Your task to perform on an android device: Go to Amazon Image 0: 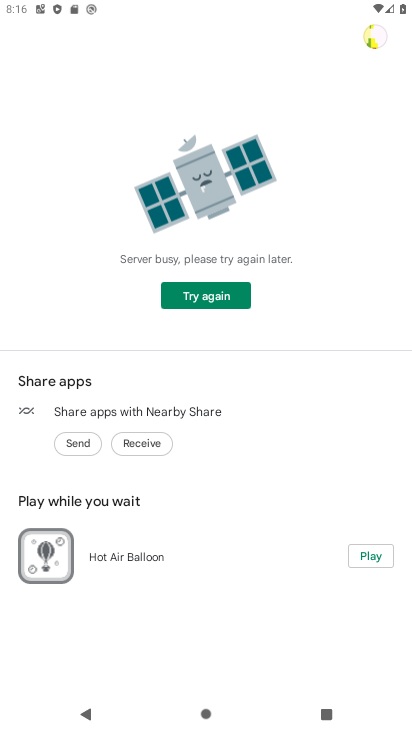
Step 0: press back button
Your task to perform on an android device: Go to Amazon Image 1: 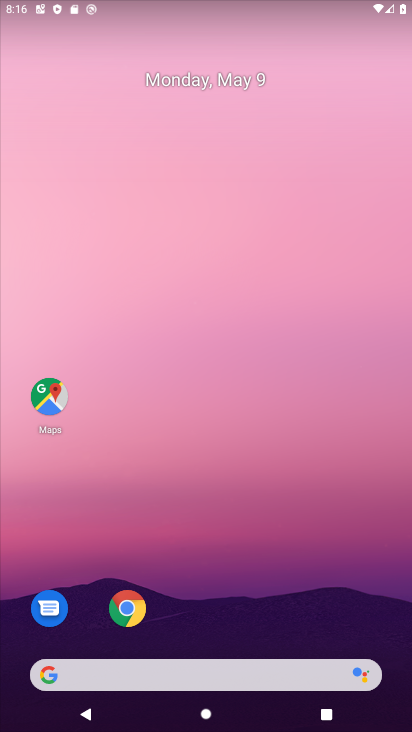
Step 1: click (131, 610)
Your task to perform on an android device: Go to Amazon Image 2: 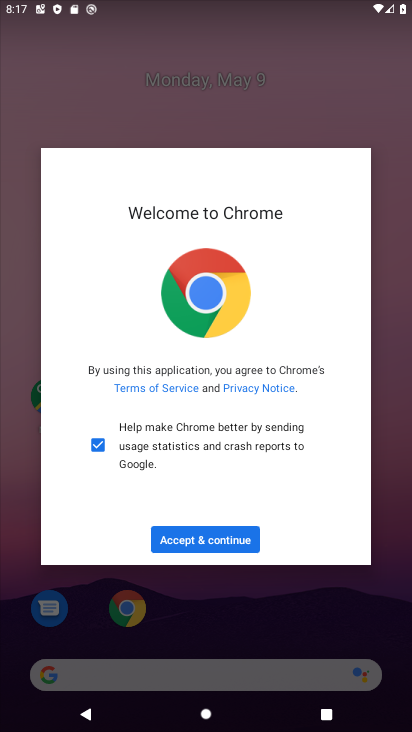
Step 2: click (252, 550)
Your task to perform on an android device: Go to Amazon Image 3: 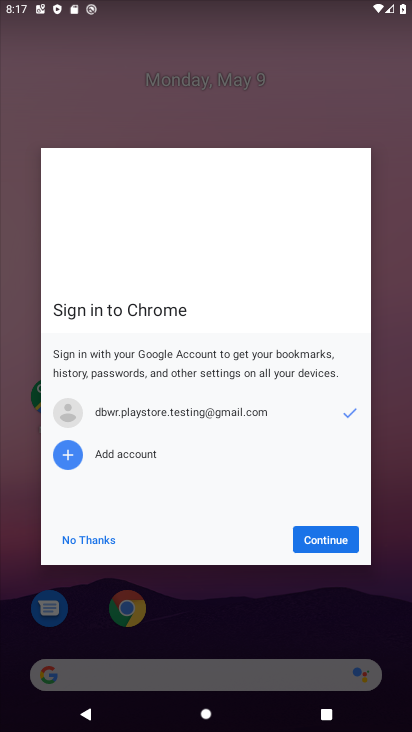
Step 3: click (329, 549)
Your task to perform on an android device: Go to Amazon Image 4: 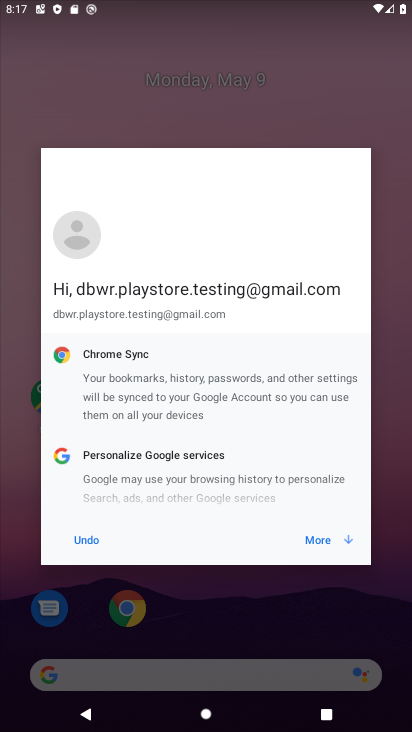
Step 4: click (329, 549)
Your task to perform on an android device: Go to Amazon Image 5: 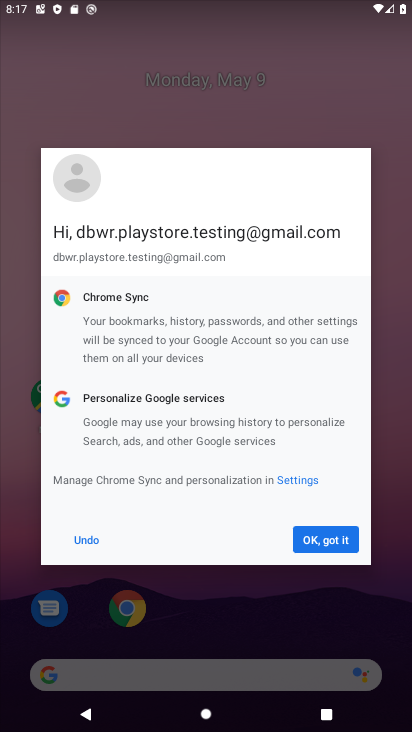
Step 5: click (329, 549)
Your task to perform on an android device: Go to Amazon Image 6: 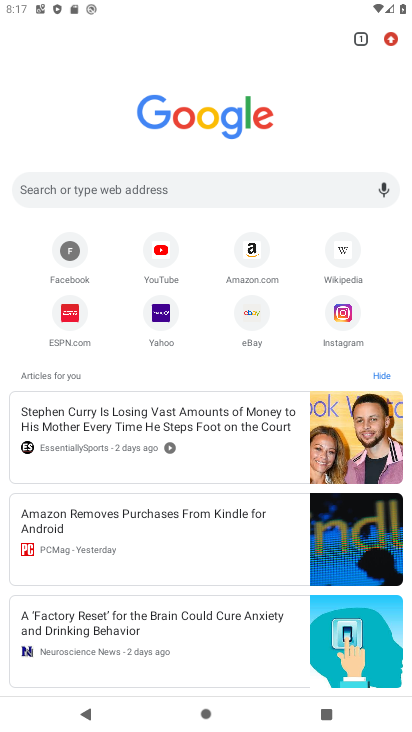
Step 6: click (257, 261)
Your task to perform on an android device: Go to Amazon Image 7: 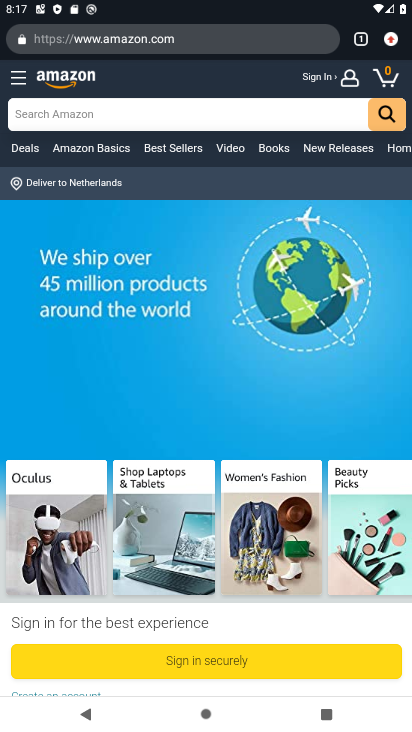
Step 7: task complete